Your task to perform on an android device: What is the capital of Brazil? Image 0: 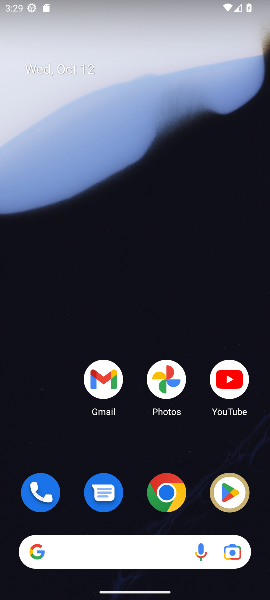
Step 0: click (159, 496)
Your task to perform on an android device: What is the capital of Brazil? Image 1: 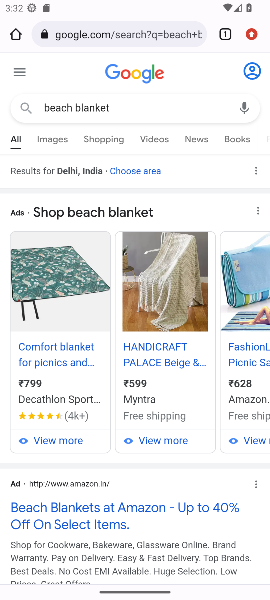
Step 1: click (99, 112)
Your task to perform on an android device: What is the capital of Brazil? Image 2: 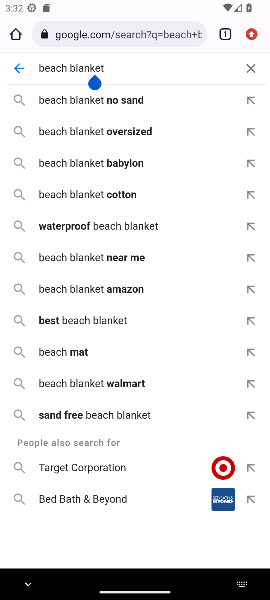
Step 2: click (254, 72)
Your task to perform on an android device: What is the capital of Brazil? Image 3: 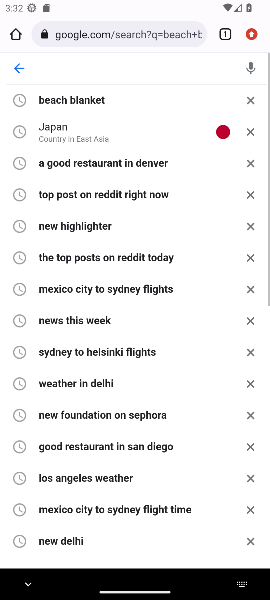
Step 3: type " capital of Brazil"
Your task to perform on an android device: What is the capital of Brazil? Image 4: 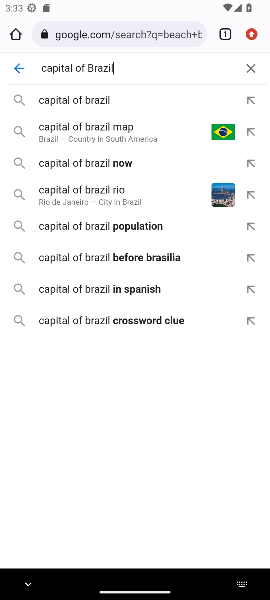
Step 4: click (91, 101)
Your task to perform on an android device: What is the capital of Brazil? Image 5: 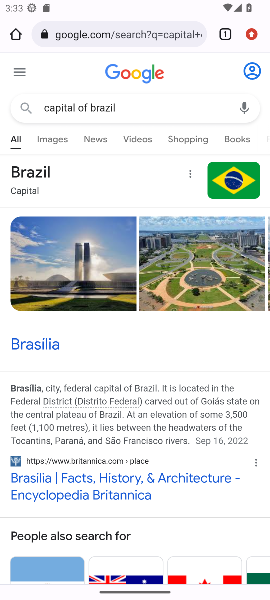
Step 5: click (40, 346)
Your task to perform on an android device: What is the capital of Brazil? Image 6: 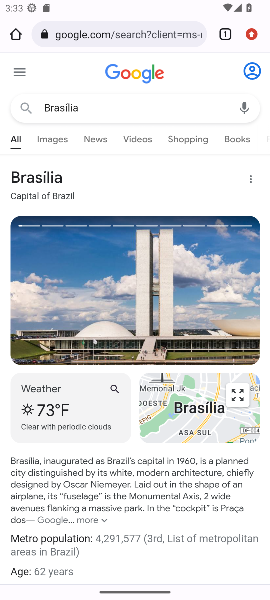
Step 6: task complete